Your task to perform on an android device: Open battery settings Image 0: 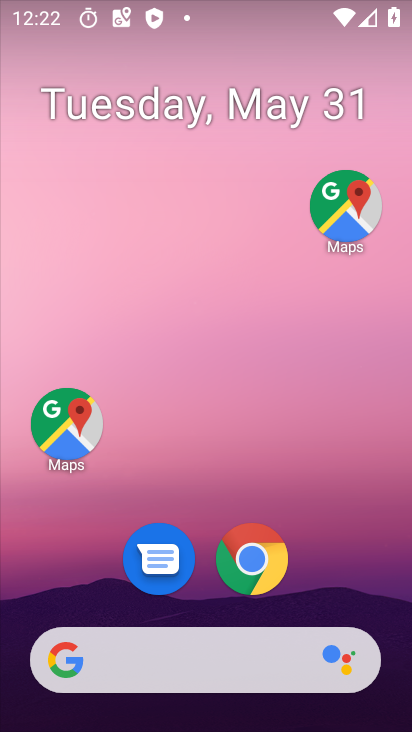
Step 0: drag from (319, 559) to (308, 0)
Your task to perform on an android device: Open battery settings Image 1: 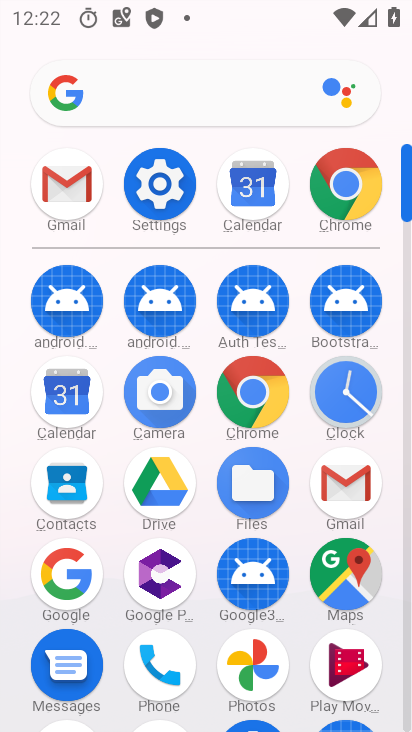
Step 1: click (165, 194)
Your task to perform on an android device: Open battery settings Image 2: 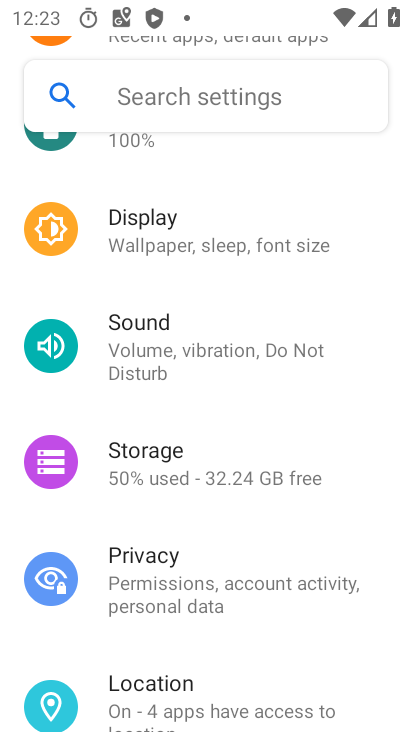
Step 2: drag from (150, 514) to (217, 598)
Your task to perform on an android device: Open battery settings Image 3: 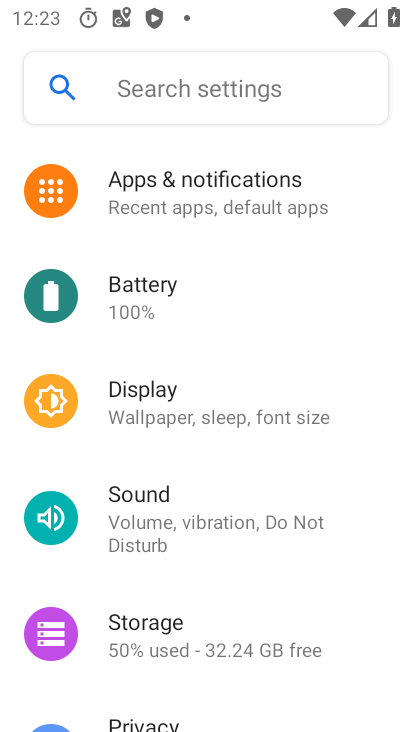
Step 3: click (169, 288)
Your task to perform on an android device: Open battery settings Image 4: 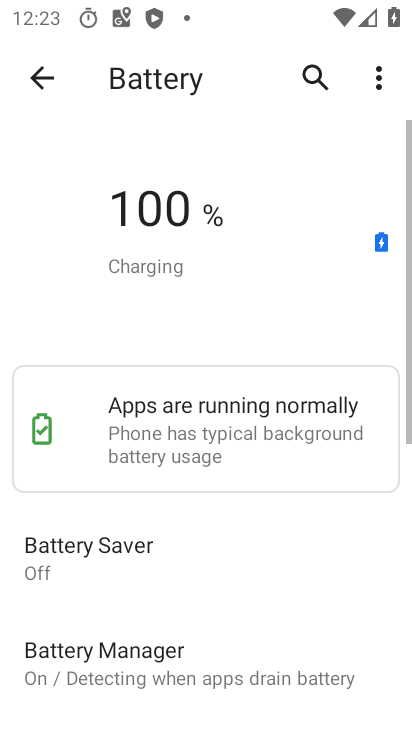
Step 4: task complete